Your task to perform on an android device: Go to sound settings Image 0: 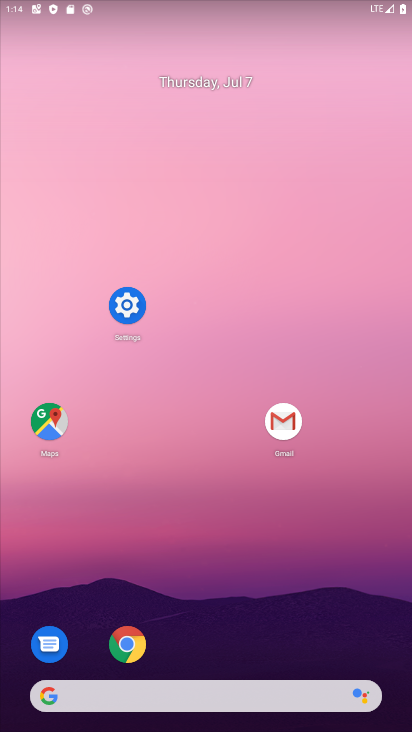
Step 0: click (124, 299)
Your task to perform on an android device: Go to sound settings Image 1: 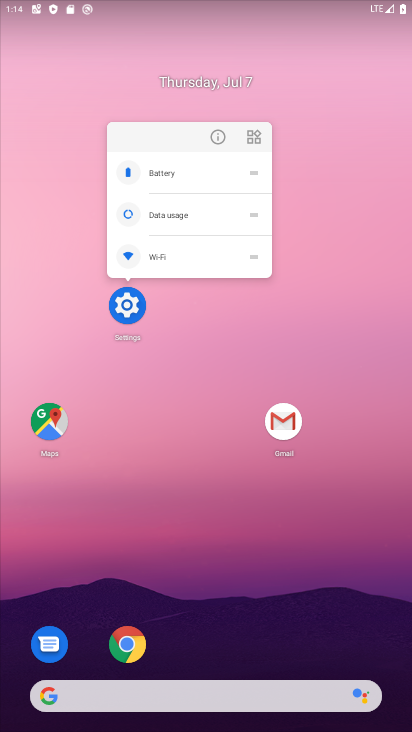
Step 1: click (127, 310)
Your task to perform on an android device: Go to sound settings Image 2: 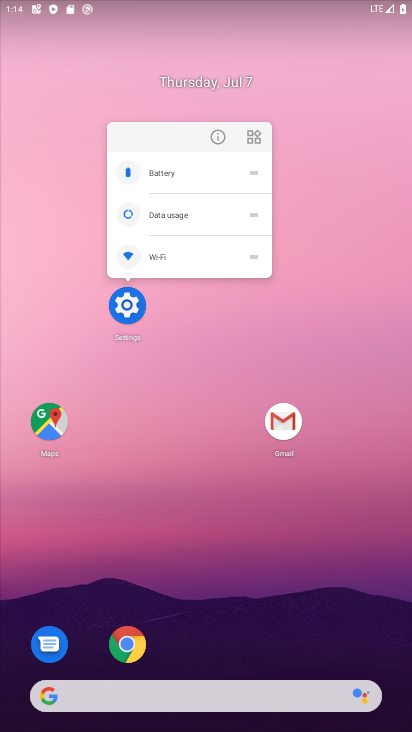
Step 2: click (127, 310)
Your task to perform on an android device: Go to sound settings Image 3: 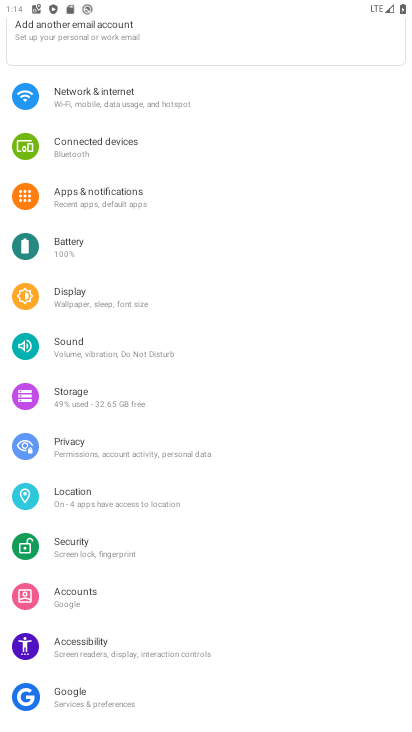
Step 3: click (72, 347)
Your task to perform on an android device: Go to sound settings Image 4: 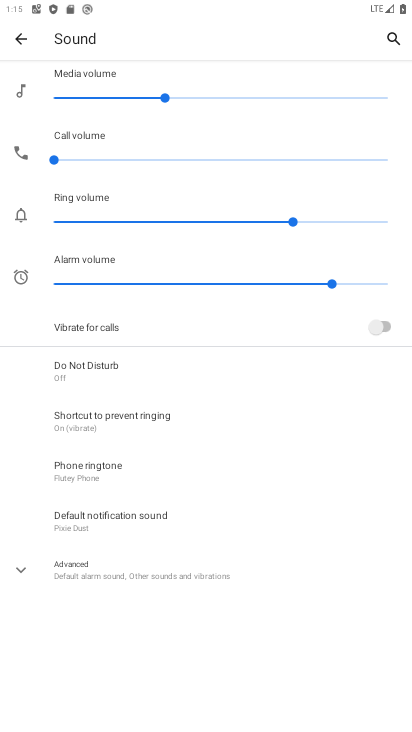
Step 4: task complete